Your task to perform on an android device: turn on sleep mode Image 0: 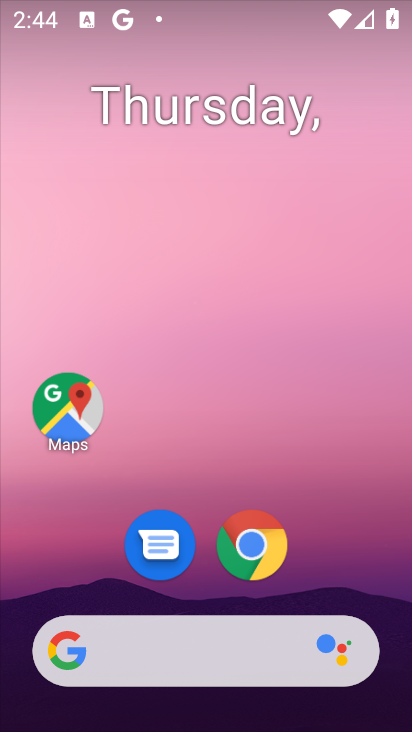
Step 0: drag from (232, 707) to (181, 241)
Your task to perform on an android device: turn on sleep mode Image 1: 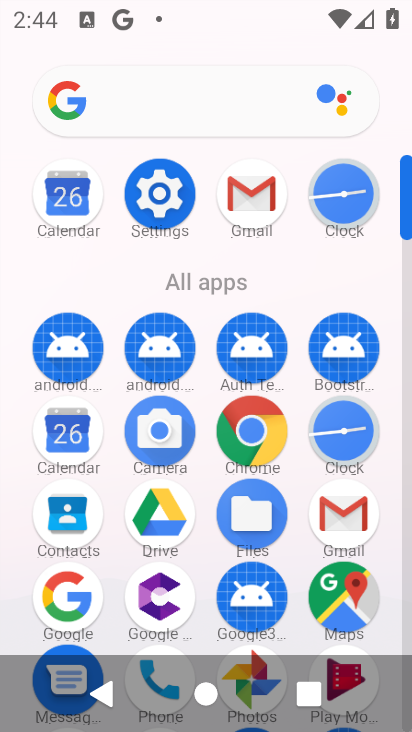
Step 1: click (159, 199)
Your task to perform on an android device: turn on sleep mode Image 2: 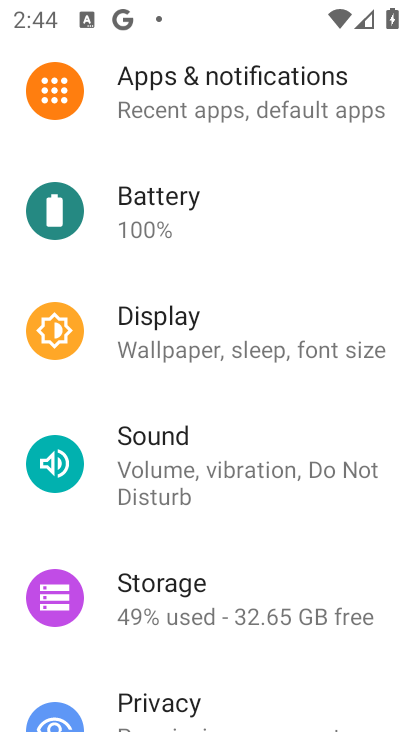
Step 2: click (279, 338)
Your task to perform on an android device: turn on sleep mode Image 3: 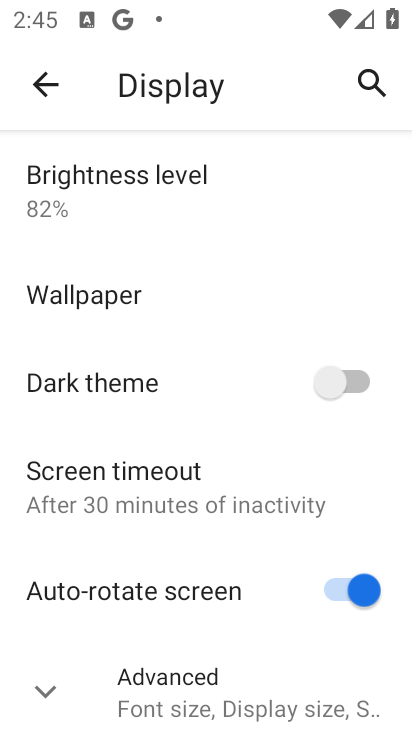
Step 3: task complete